Your task to perform on an android device: Open Wikipedia Image 0: 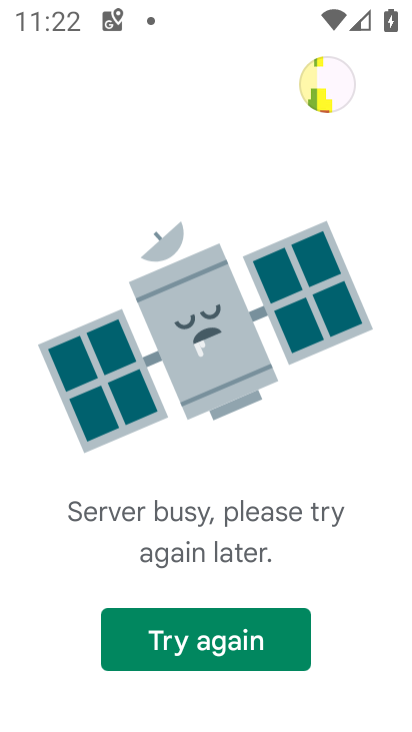
Step 0: press home button
Your task to perform on an android device: Open Wikipedia Image 1: 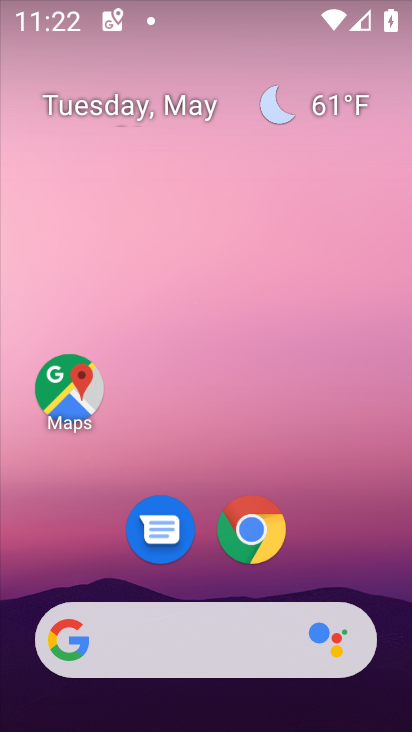
Step 1: click (258, 541)
Your task to perform on an android device: Open Wikipedia Image 2: 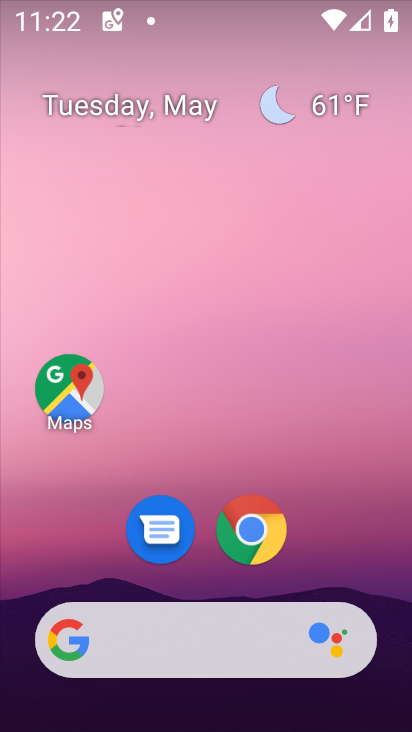
Step 2: click (258, 541)
Your task to perform on an android device: Open Wikipedia Image 3: 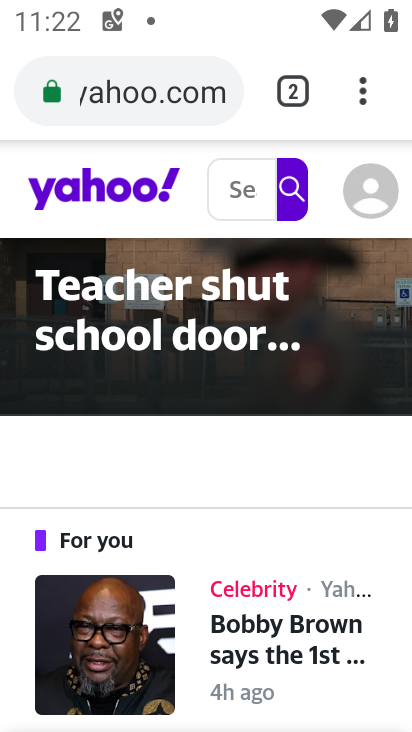
Step 3: click (284, 103)
Your task to perform on an android device: Open Wikipedia Image 4: 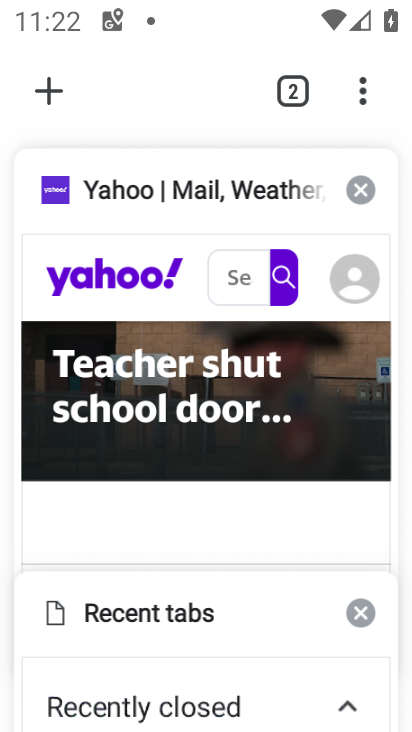
Step 4: click (32, 90)
Your task to perform on an android device: Open Wikipedia Image 5: 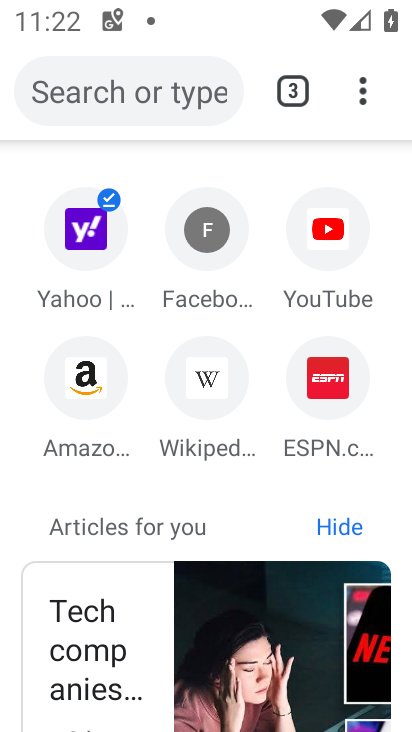
Step 5: click (183, 394)
Your task to perform on an android device: Open Wikipedia Image 6: 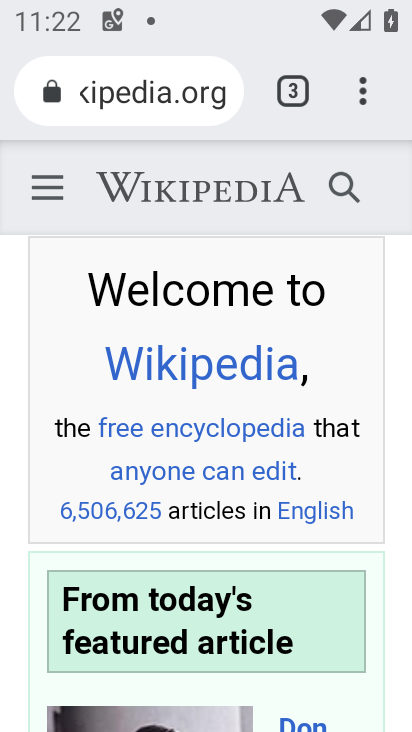
Step 6: task complete